Your task to perform on an android device: check google app version Image 0: 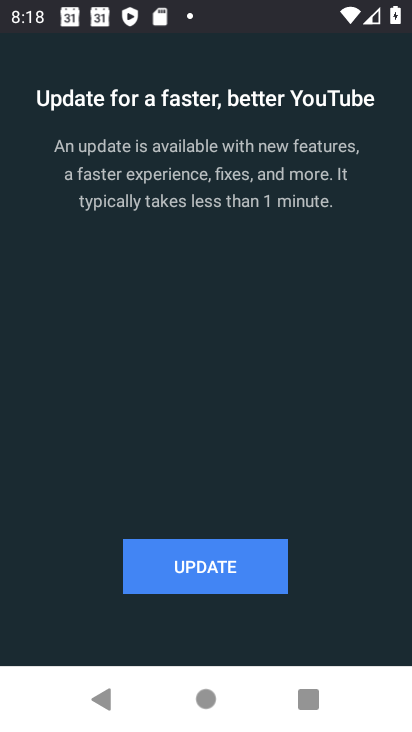
Step 0: press home button
Your task to perform on an android device: check google app version Image 1: 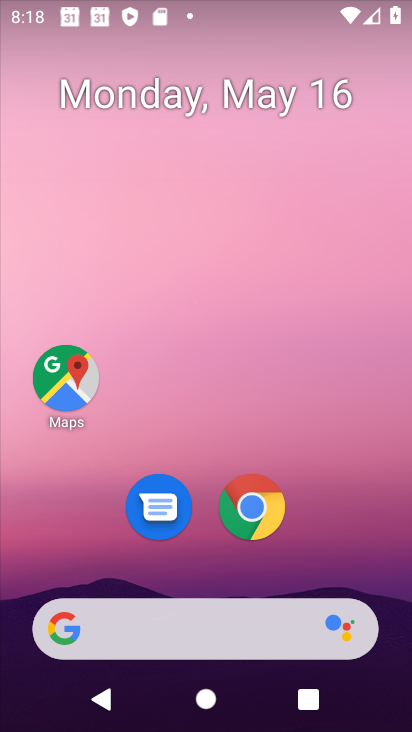
Step 1: click (250, 501)
Your task to perform on an android device: check google app version Image 2: 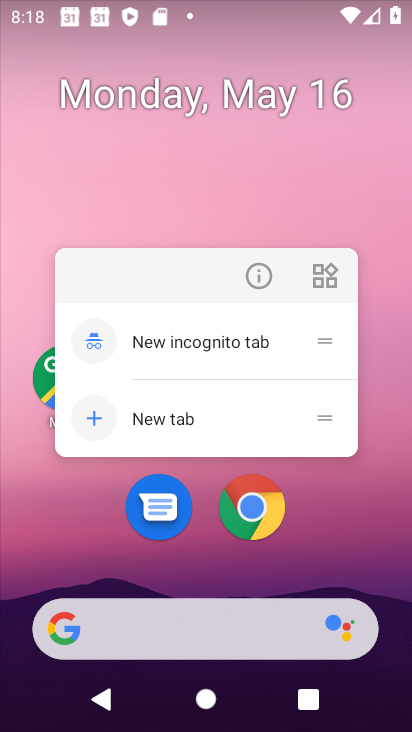
Step 2: click (250, 501)
Your task to perform on an android device: check google app version Image 3: 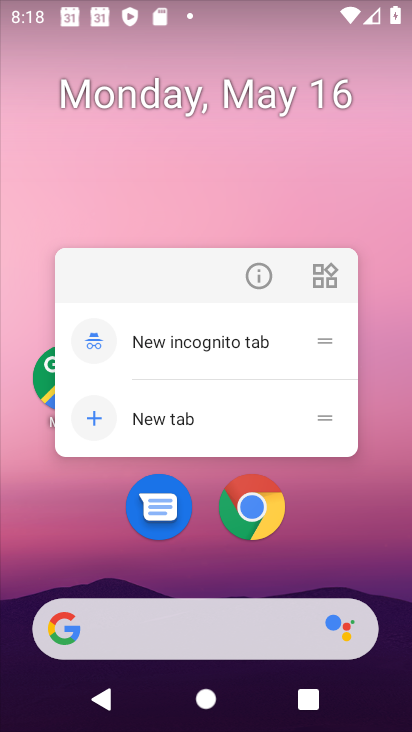
Step 3: click (250, 501)
Your task to perform on an android device: check google app version Image 4: 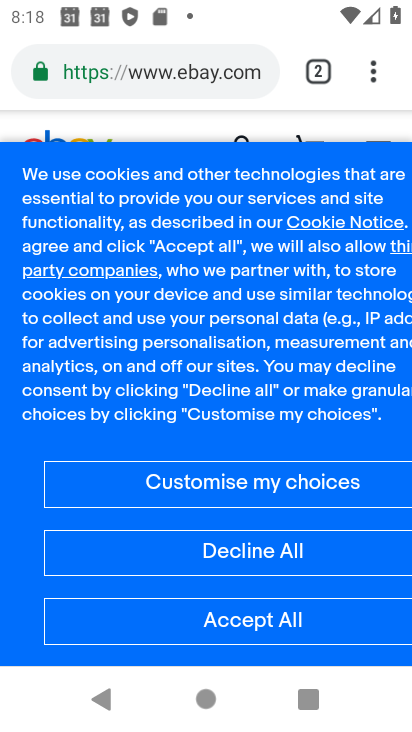
Step 4: click (371, 67)
Your task to perform on an android device: check google app version Image 5: 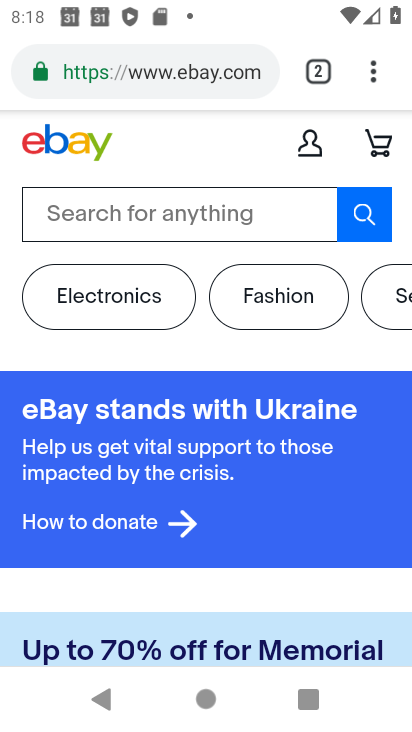
Step 5: press home button
Your task to perform on an android device: check google app version Image 6: 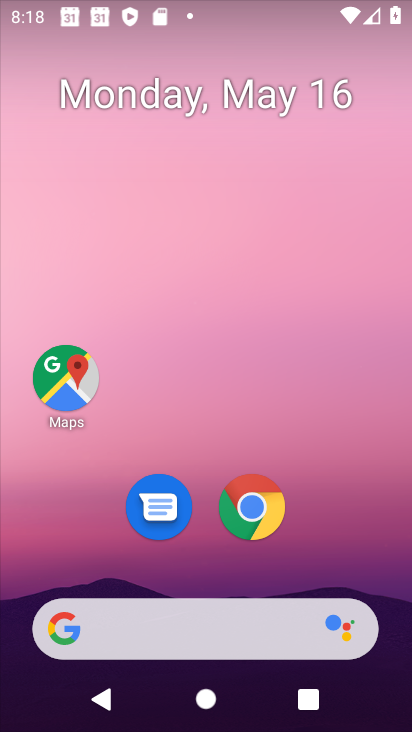
Step 6: drag from (288, 535) to (317, 55)
Your task to perform on an android device: check google app version Image 7: 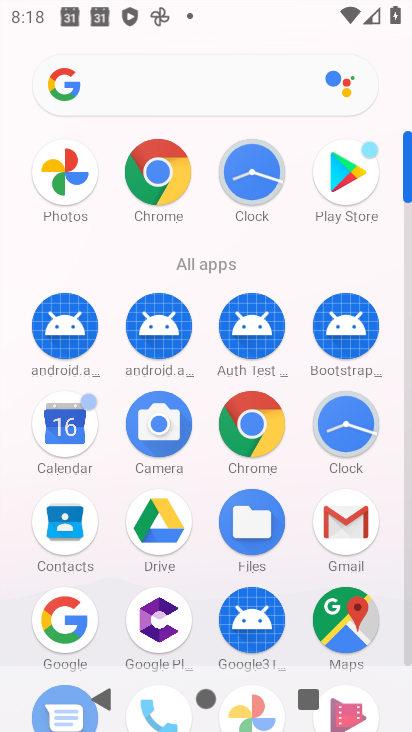
Step 7: click (55, 625)
Your task to perform on an android device: check google app version Image 8: 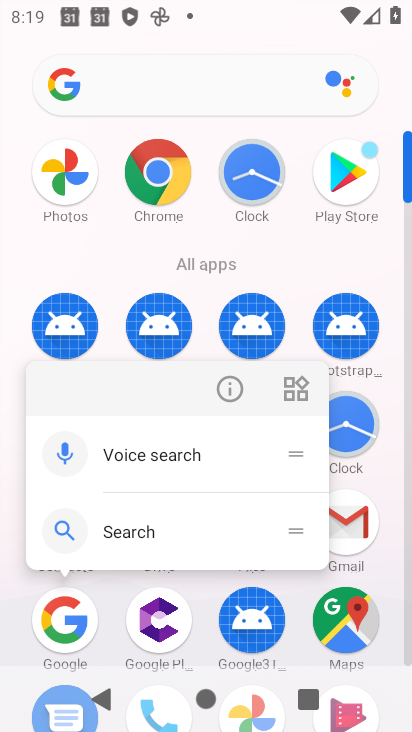
Step 8: click (229, 383)
Your task to perform on an android device: check google app version Image 9: 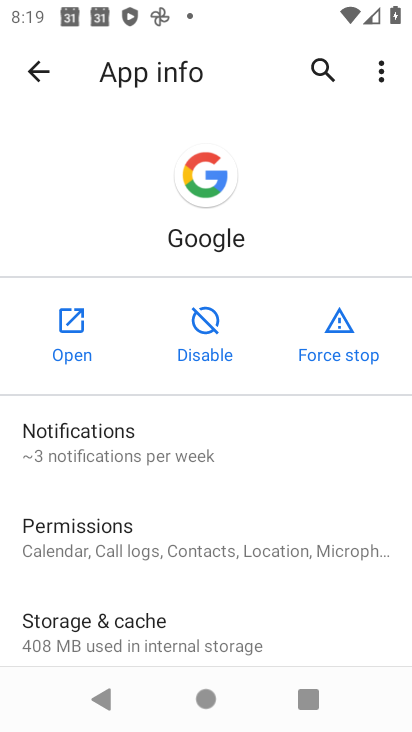
Step 9: drag from (206, 409) to (206, 287)
Your task to perform on an android device: check google app version Image 10: 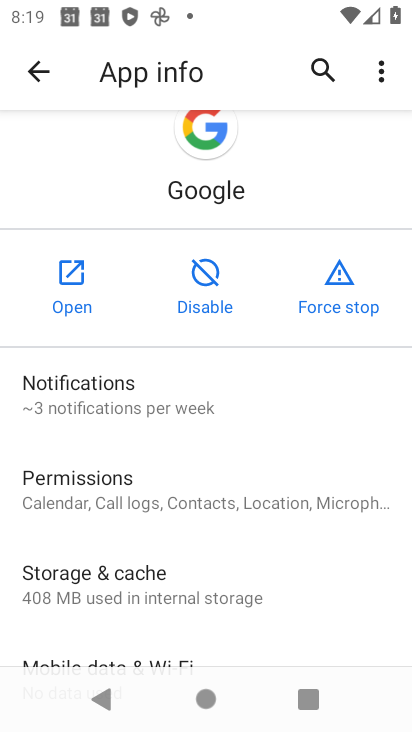
Step 10: drag from (179, 639) to (254, 290)
Your task to perform on an android device: check google app version Image 11: 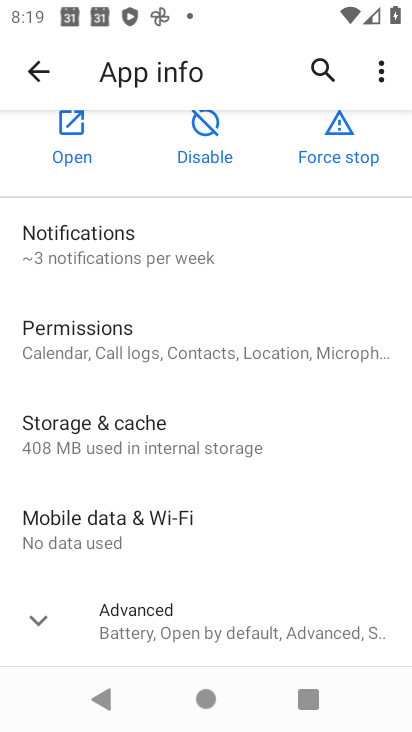
Step 11: click (161, 620)
Your task to perform on an android device: check google app version Image 12: 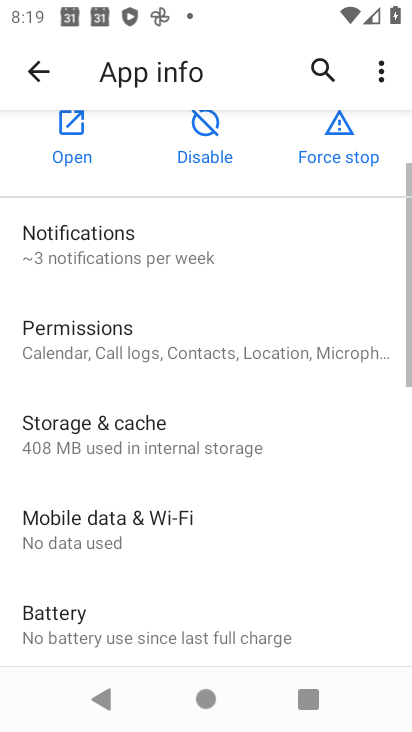
Step 12: task complete